Your task to perform on an android device: Open Chrome and go to settings Image 0: 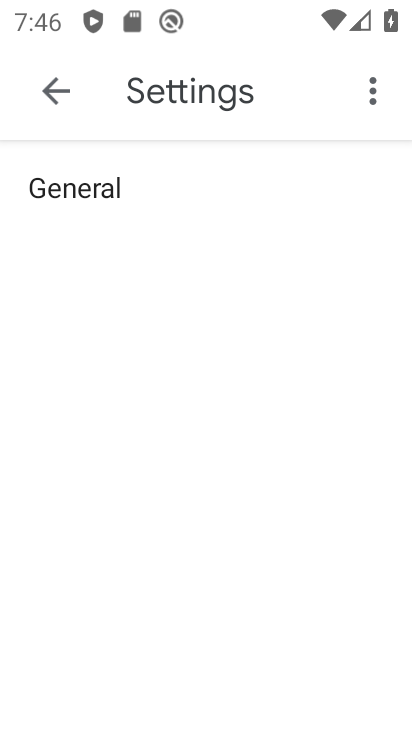
Step 0: press back button
Your task to perform on an android device: Open Chrome and go to settings Image 1: 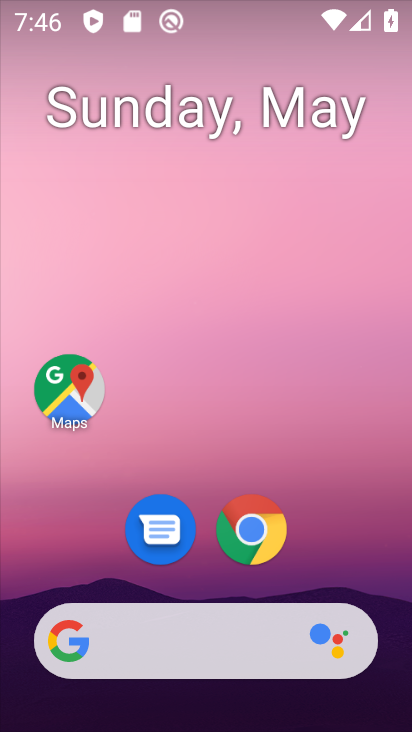
Step 1: click (240, 532)
Your task to perform on an android device: Open Chrome and go to settings Image 2: 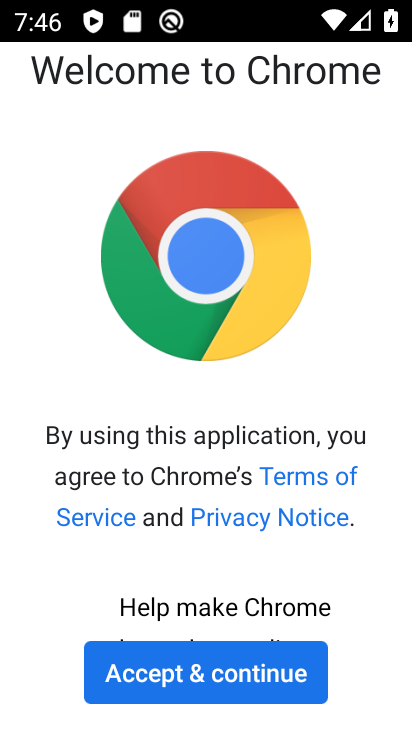
Step 2: click (215, 671)
Your task to perform on an android device: Open Chrome and go to settings Image 3: 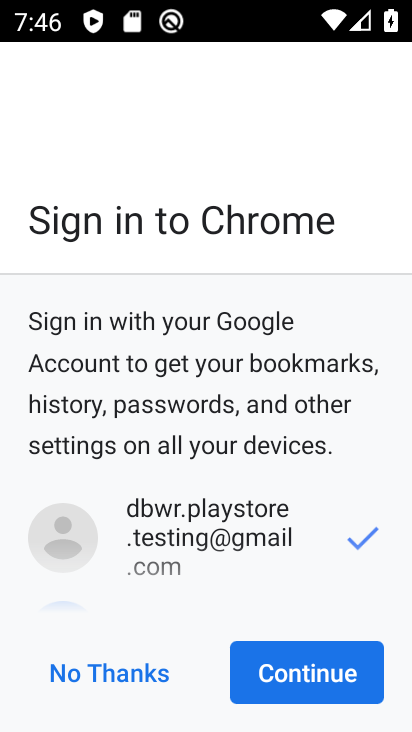
Step 3: click (303, 666)
Your task to perform on an android device: Open Chrome and go to settings Image 4: 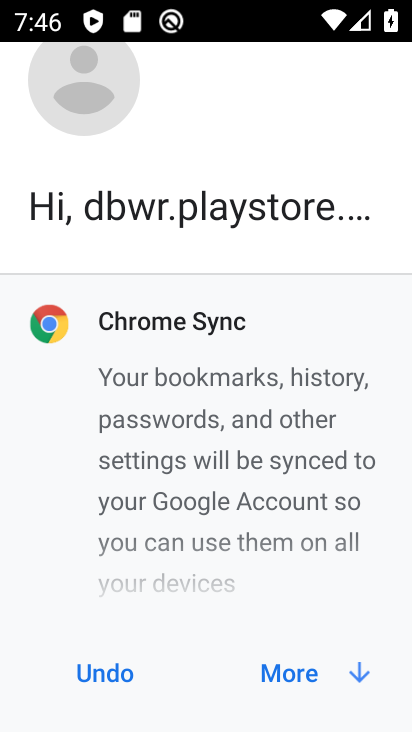
Step 4: click (276, 677)
Your task to perform on an android device: Open Chrome and go to settings Image 5: 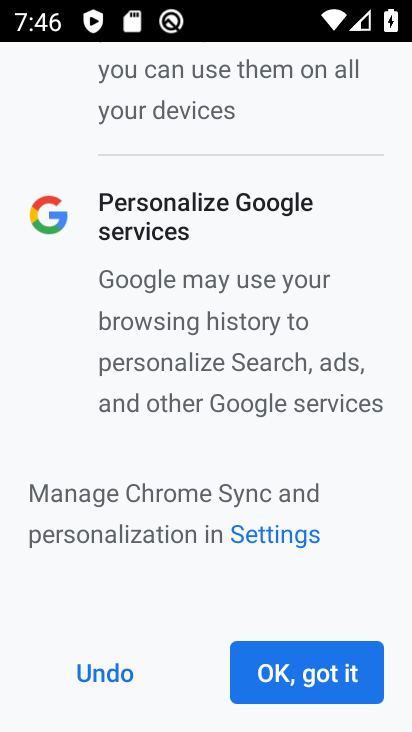
Step 5: click (287, 673)
Your task to perform on an android device: Open Chrome and go to settings Image 6: 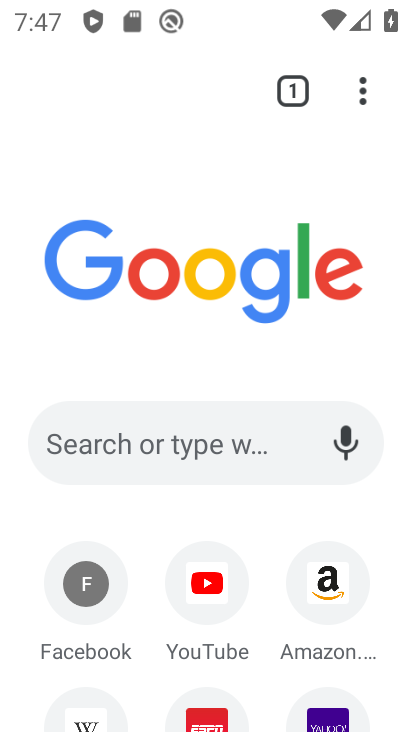
Step 6: task complete